Your task to perform on an android device: Go to network settings Image 0: 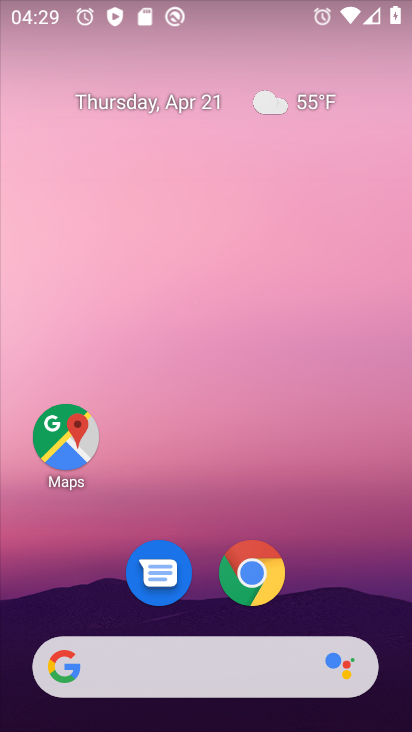
Step 0: drag from (369, 609) to (333, 228)
Your task to perform on an android device: Go to network settings Image 1: 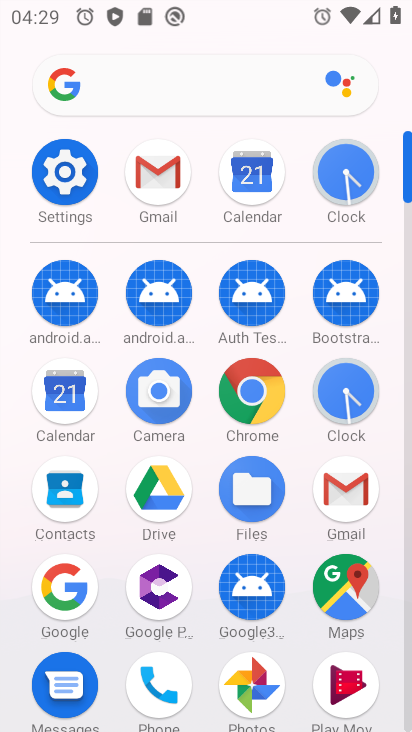
Step 1: click (407, 706)
Your task to perform on an android device: Go to network settings Image 2: 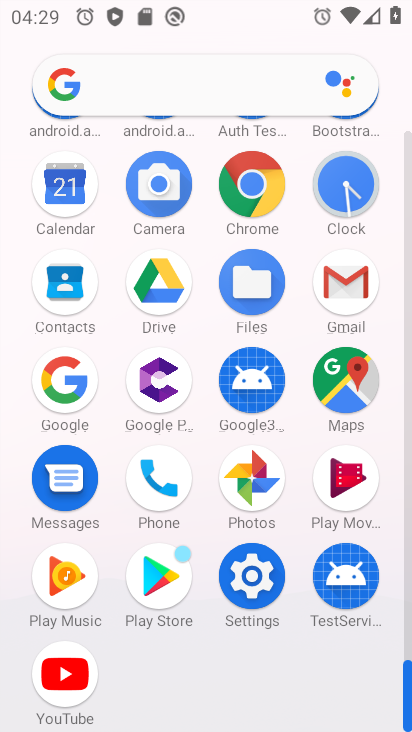
Step 2: click (252, 572)
Your task to perform on an android device: Go to network settings Image 3: 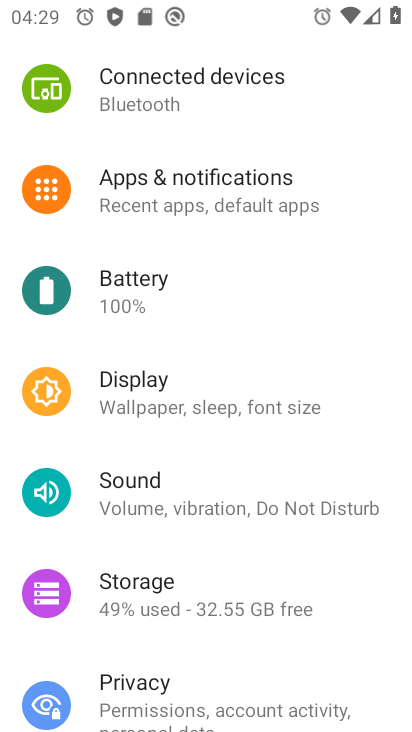
Step 3: drag from (336, 295) to (349, 502)
Your task to perform on an android device: Go to network settings Image 4: 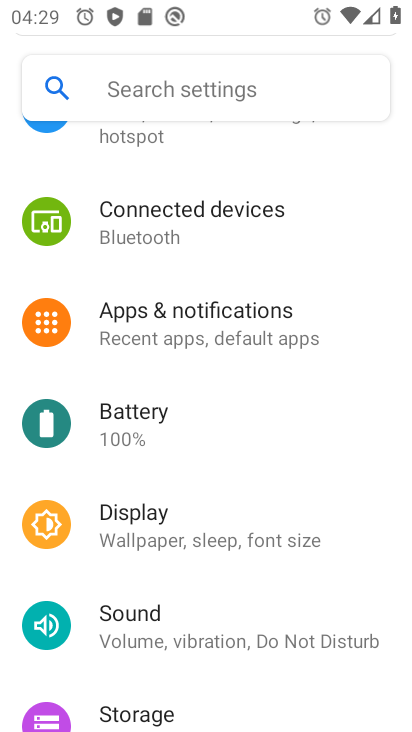
Step 4: drag from (368, 367) to (370, 585)
Your task to perform on an android device: Go to network settings Image 5: 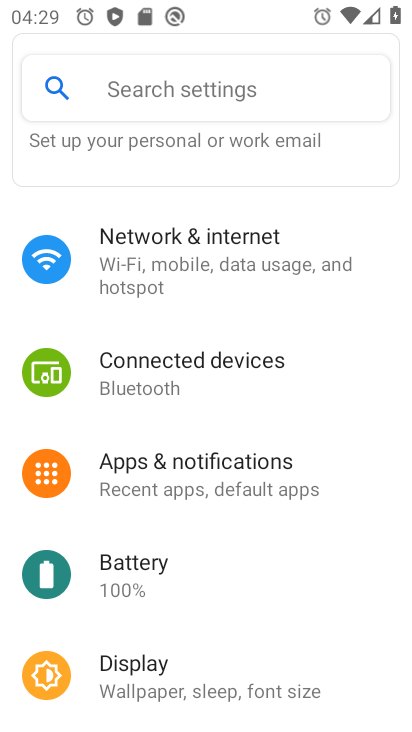
Step 5: click (144, 254)
Your task to perform on an android device: Go to network settings Image 6: 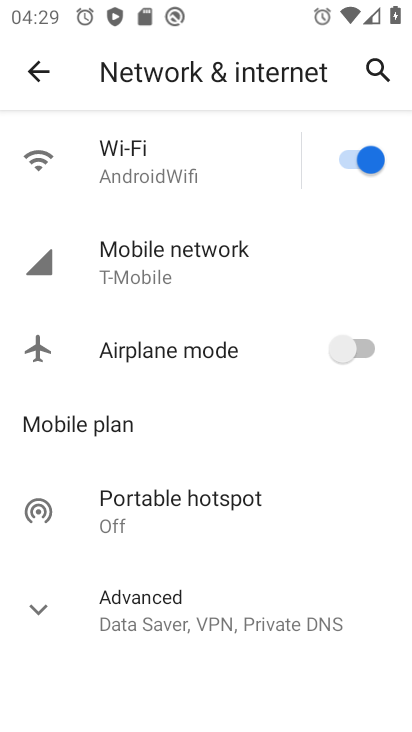
Step 6: click (197, 259)
Your task to perform on an android device: Go to network settings Image 7: 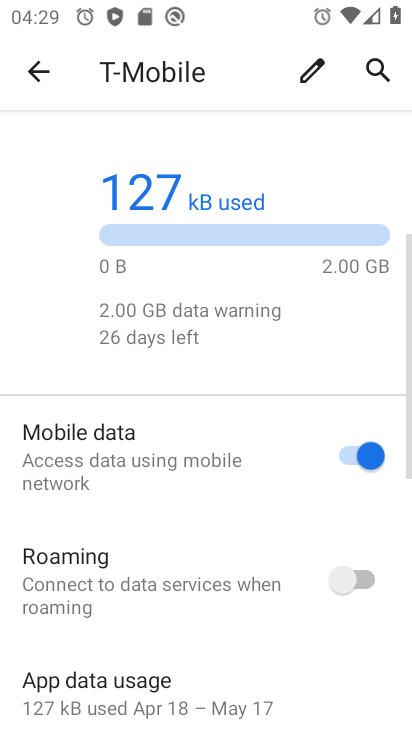
Step 7: drag from (215, 469) to (264, 265)
Your task to perform on an android device: Go to network settings Image 8: 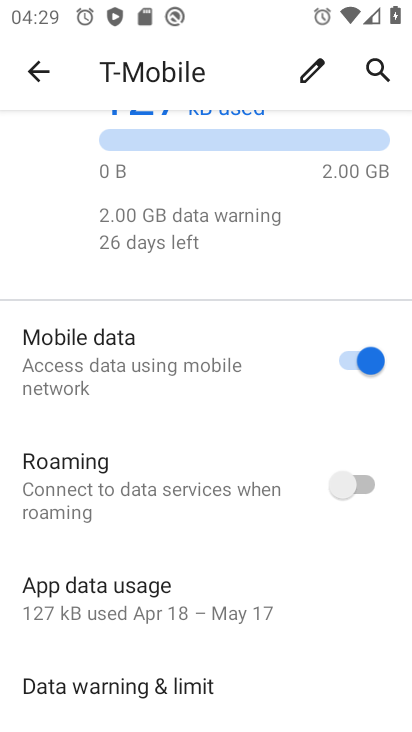
Step 8: drag from (264, 583) to (266, 199)
Your task to perform on an android device: Go to network settings Image 9: 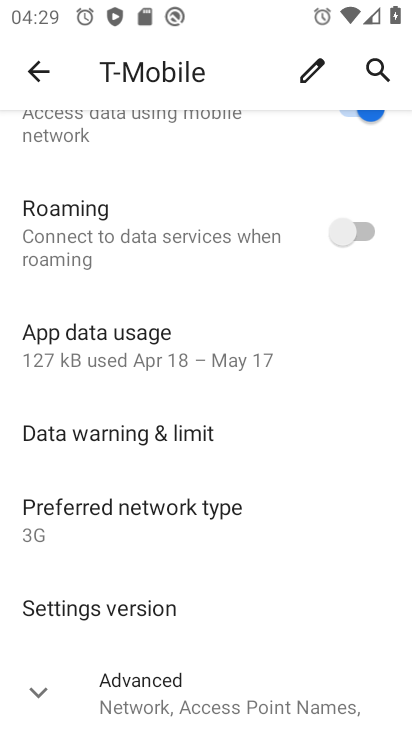
Step 9: click (33, 690)
Your task to perform on an android device: Go to network settings Image 10: 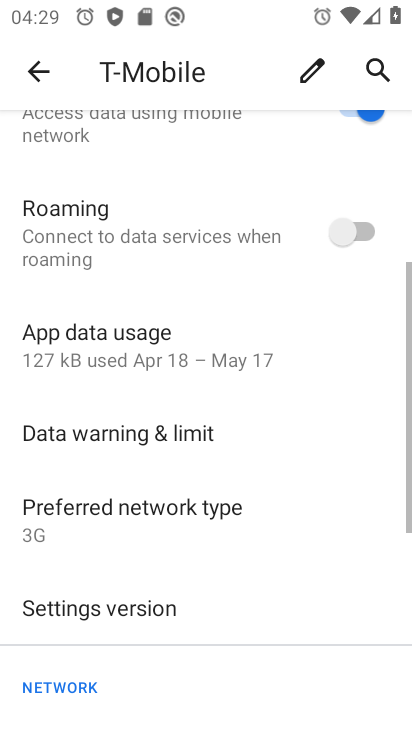
Step 10: task complete